Your task to perform on an android device: Open the web browser Image 0: 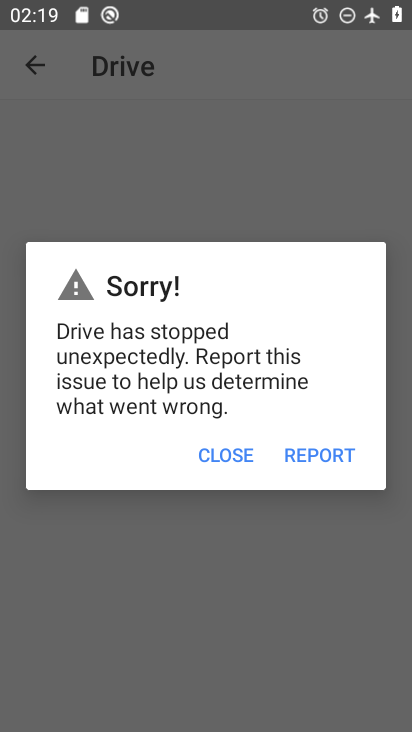
Step 0: press home button
Your task to perform on an android device: Open the web browser Image 1: 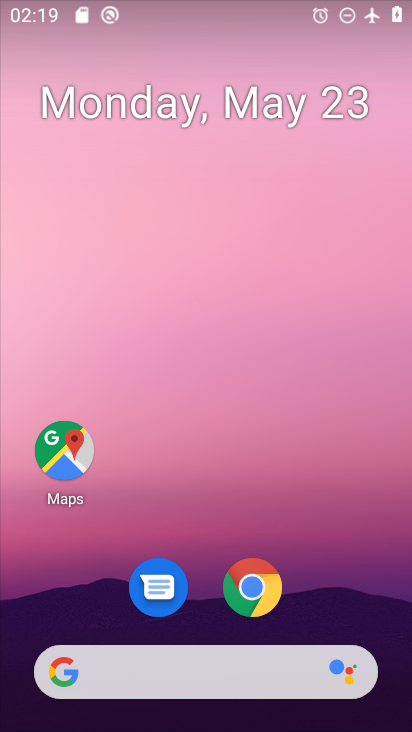
Step 1: click (264, 592)
Your task to perform on an android device: Open the web browser Image 2: 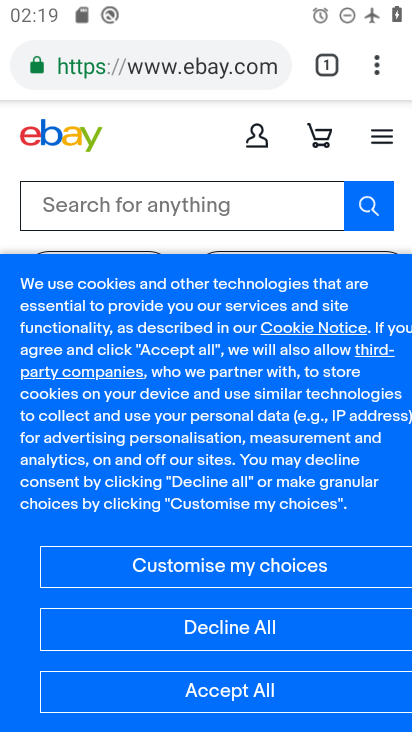
Step 2: click (217, 72)
Your task to perform on an android device: Open the web browser Image 3: 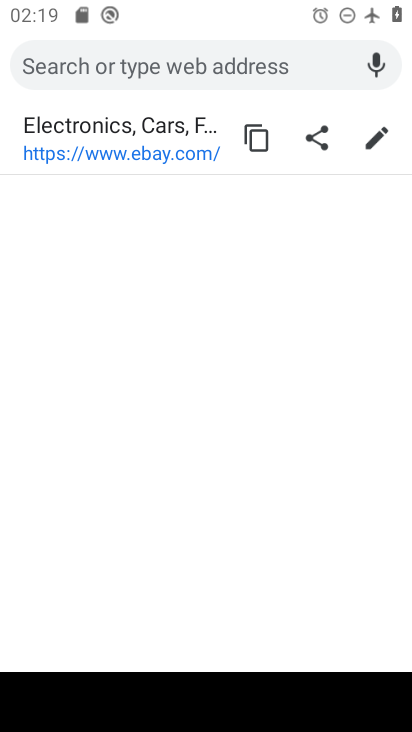
Step 3: task complete